Your task to perform on an android device: Open Chrome and go to settings Image 0: 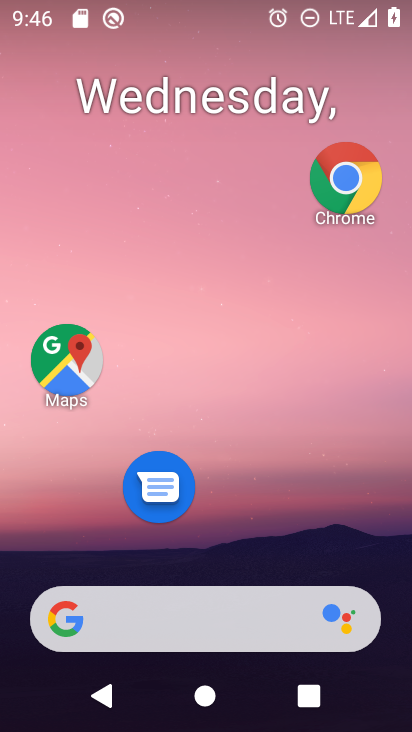
Step 0: drag from (178, 720) to (213, 200)
Your task to perform on an android device: Open Chrome and go to settings Image 1: 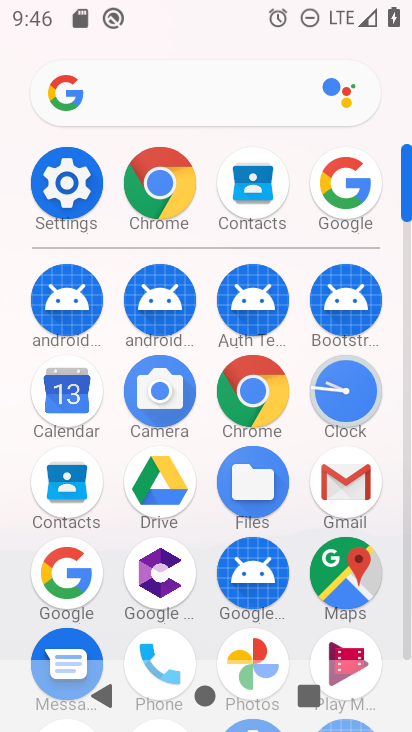
Step 1: click (169, 205)
Your task to perform on an android device: Open Chrome and go to settings Image 2: 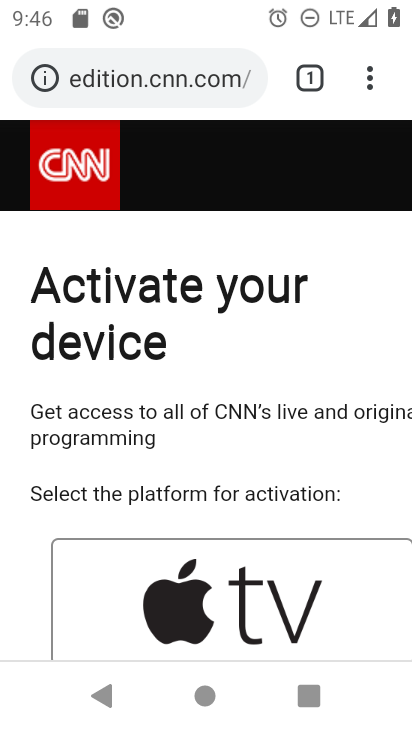
Step 2: click (374, 87)
Your task to perform on an android device: Open Chrome and go to settings Image 3: 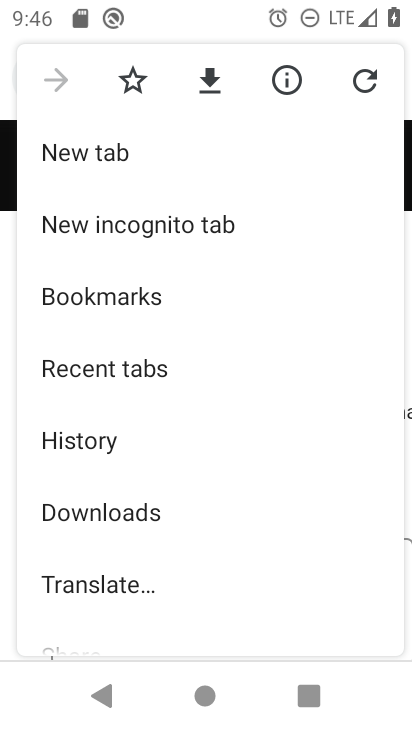
Step 3: drag from (201, 548) to (201, 303)
Your task to perform on an android device: Open Chrome and go to settings Image 4: 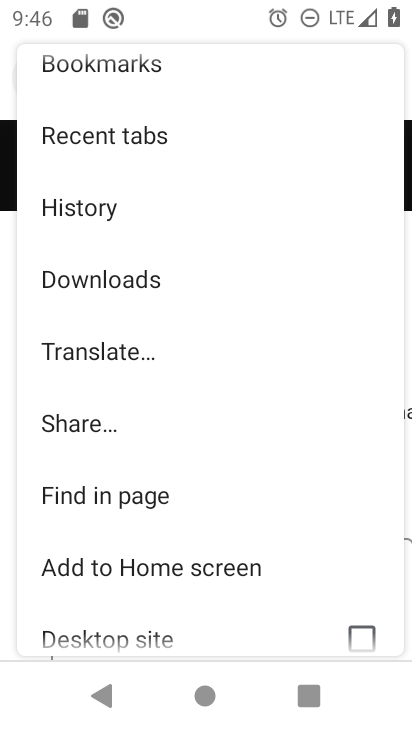
Step 4: drag from (164, 553) to (170, 324)
Your task to perform on an android device: Open Chrome and go to settings Image 5: 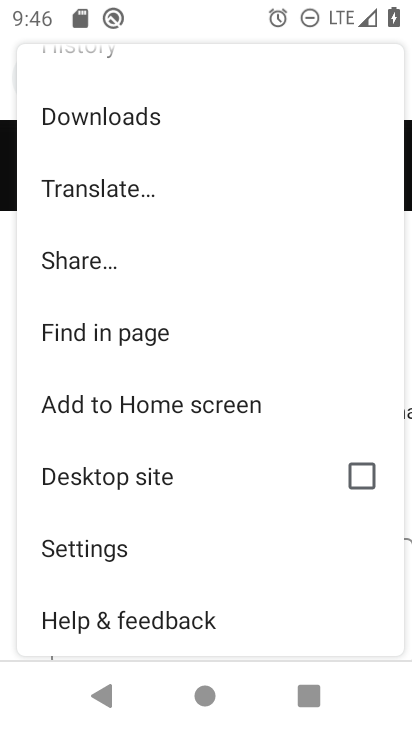
Step 5: click (118, 556)
Your task to perform on an android device: Open Chrome and go to settings Image 6: 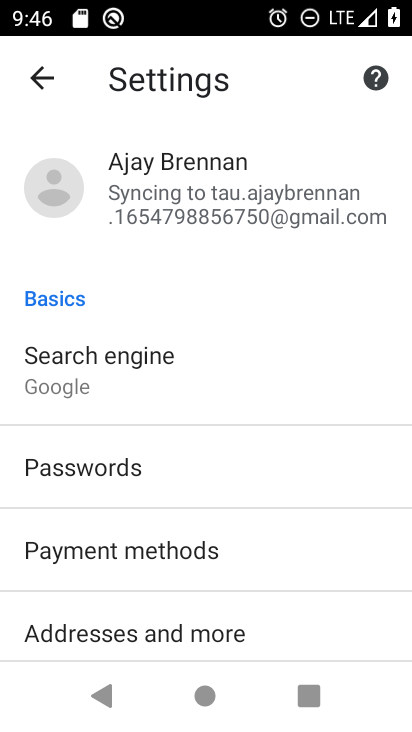
Step 6: task complete